Your task to perform on an android device: Go to eBay Image 0: 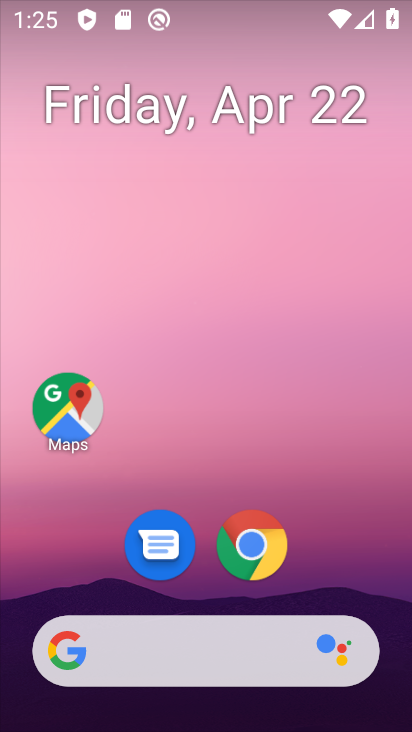
Step 0: drag from (229, 407) to (262, 73)
Your task to perform on an android device: Go to eBay Image 1: 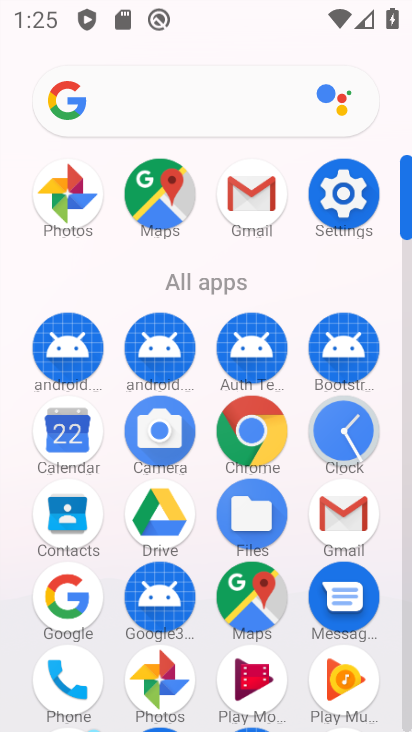
Step 1: click (69, 602)
Your task to perform on an android device: Go to eBay Image 2: 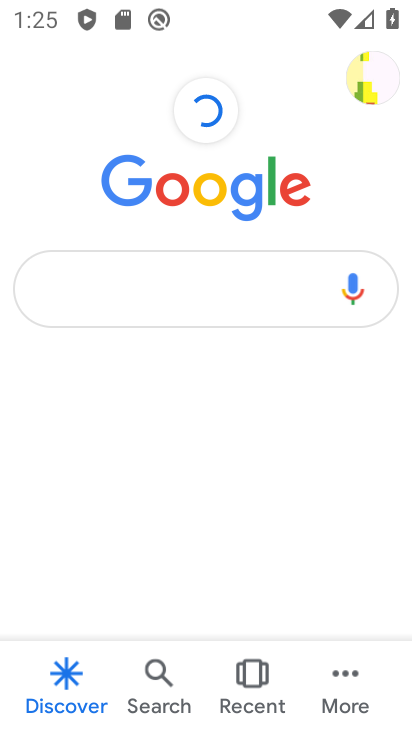
Step 2: click (171, 294)
Your task to perform on an android device: Go to eBay Image 3: 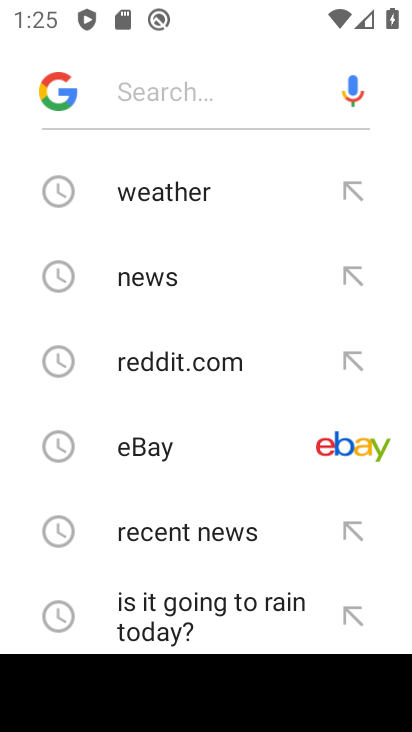
Step 3: click (161, 446)
Your task to perform on an android device: Go to eBay Image 4: 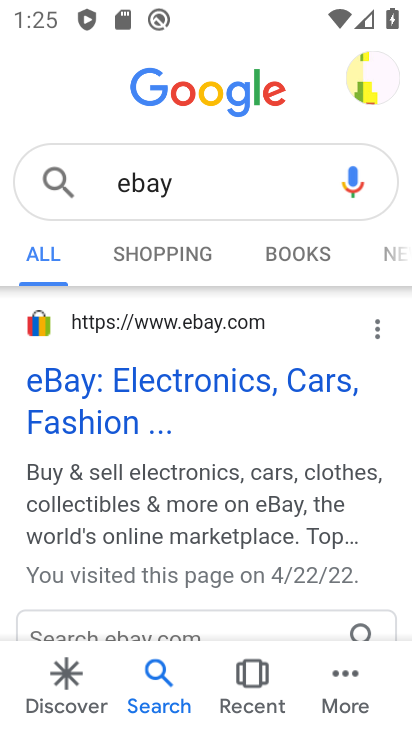
Step 4: task complete